Your task to perform on an android device: Go to Yahoo.com Image 0: 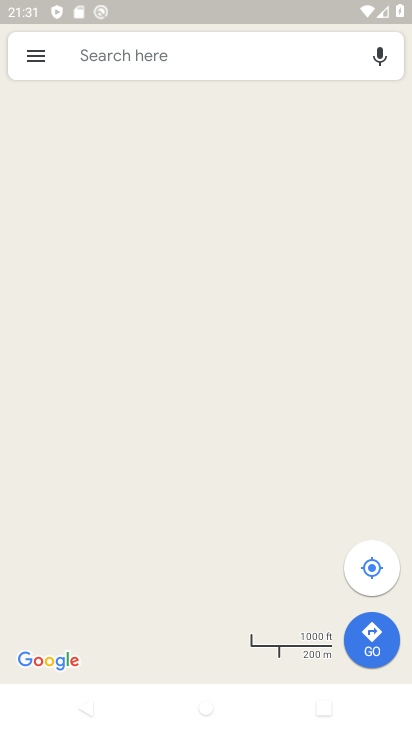
Step 0: press home button
Your task to perform on an android device: Go to Yahoo.com Image 1: 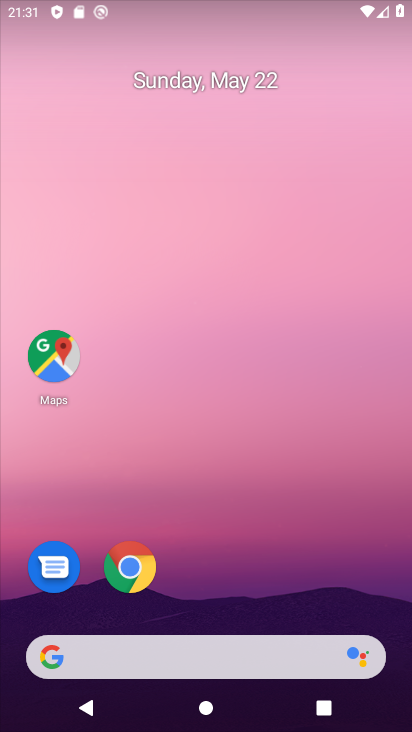
Step 1: drag from (228, 575) to (216, 283)
Your task to perform on an android device: Go to Yahoo.com Image 2: 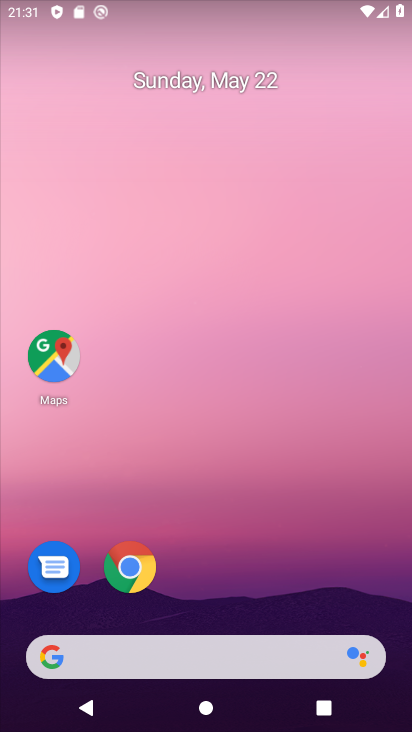
Step 2: drag from (234, 598) to (237, 228)
Your task to perform on an android device: Go to Yahoo.com Image 3: 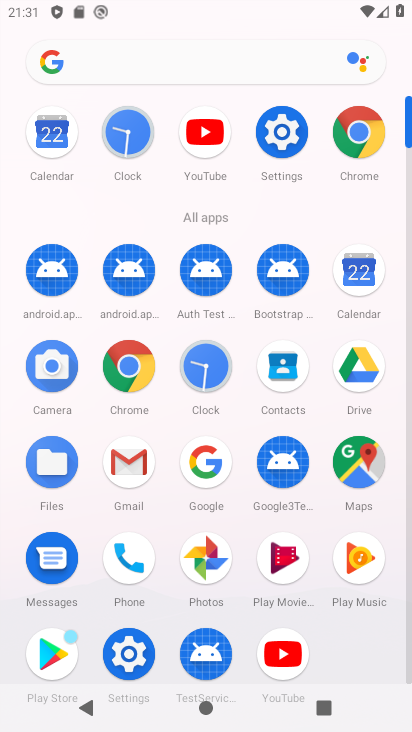
Step 3: click (130, 356)
Your task to perform on an android device: Go to Yahoo.com Image 4: 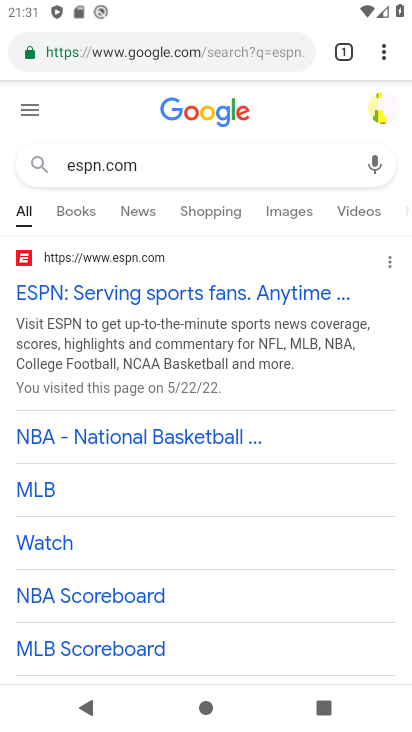
Step 4: click (377, 51)
Your task to perform on an android device: Go to Yahoo.com Image 5: 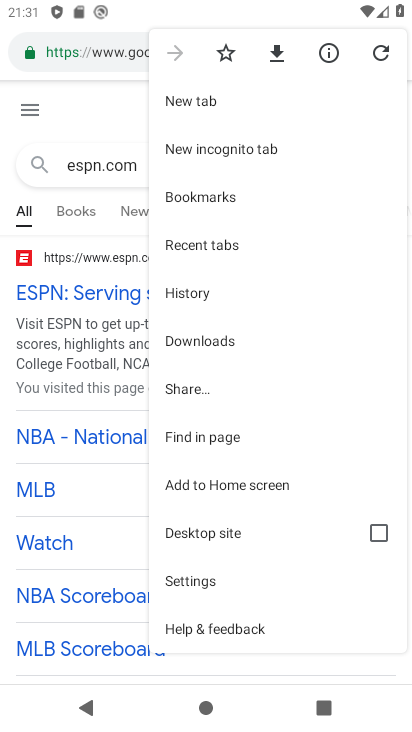
Step 5: click (219, 97)
Your task to perform on an android device: Go to Yahoo.com Image 6: 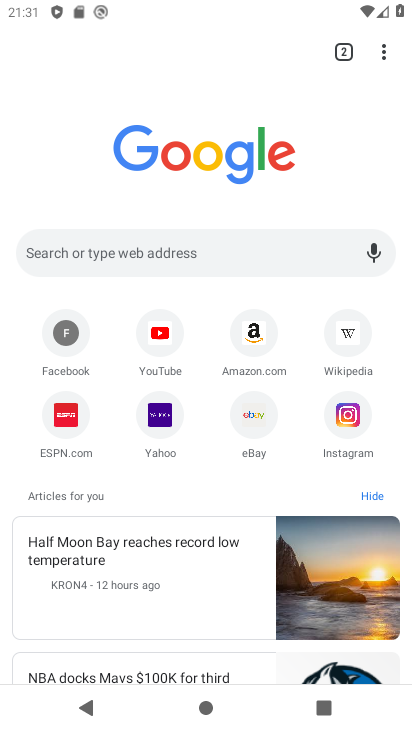
Step 6: click (163, 426)
Your task to perform on an android device: Go to Yahoo.com Image 7: 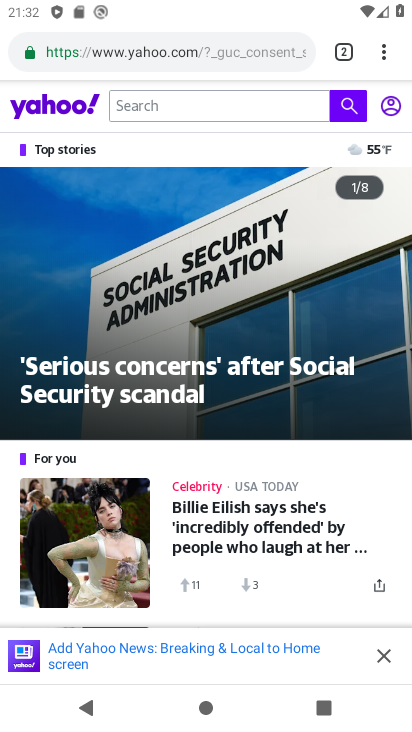
Step 7: task complete